Your task to perform on an android device: Open calendar and show me the fourth week of next month Image 0: 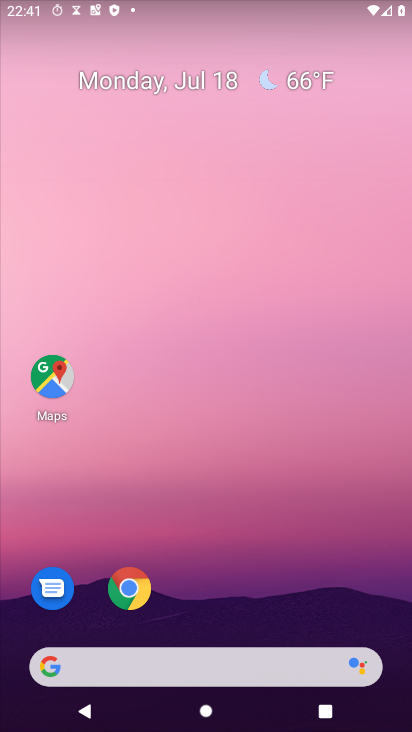
Step 0: press home button
Your task to perform on an android device: Open calendar and show me the fourth week of next month Image 1: 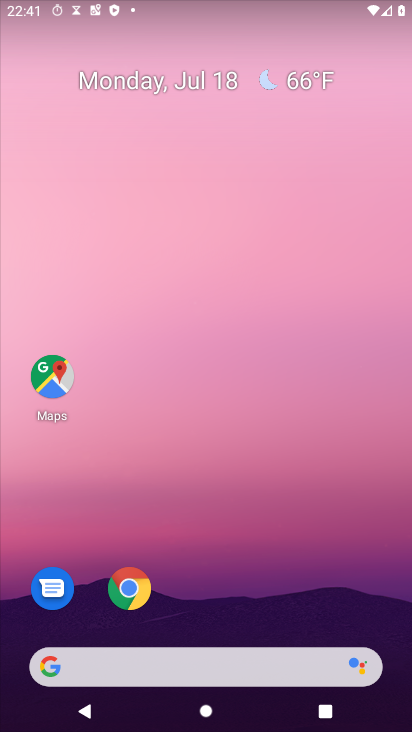
Step 1: drag from (225, 668) to (263, 67)
Your task to perform on an android device: Open calendar and show me the fourth week of next month Image 2: 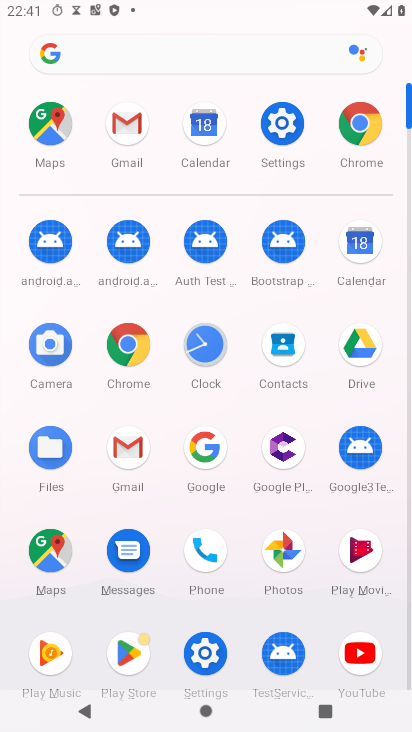
Step 2: click (365, 248)
Your task to perform on an android device: Open calendar and show me the fourth week of next month Image 3: 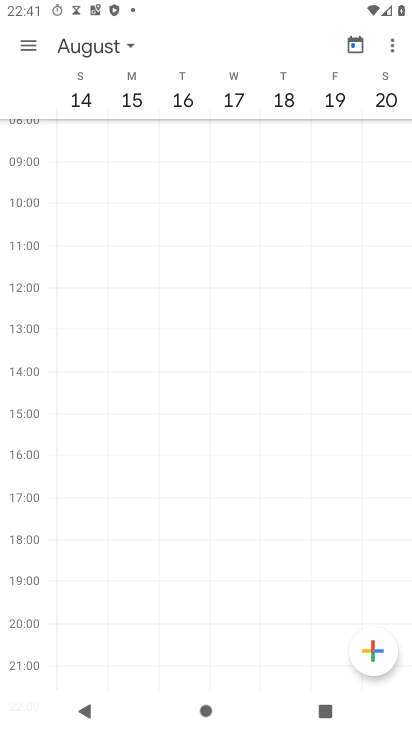
Step 3: click (109, 34)
Your task to perform on an android device: Open calendar and show me the fourth week of next month Image 4: 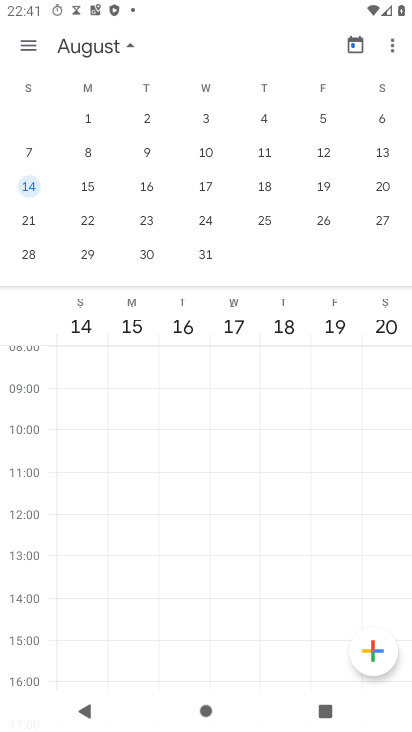
Step 4: click (33, 222)
Your task to perform on an android device: Open calendar and show me the fourth week of next month Image 5: 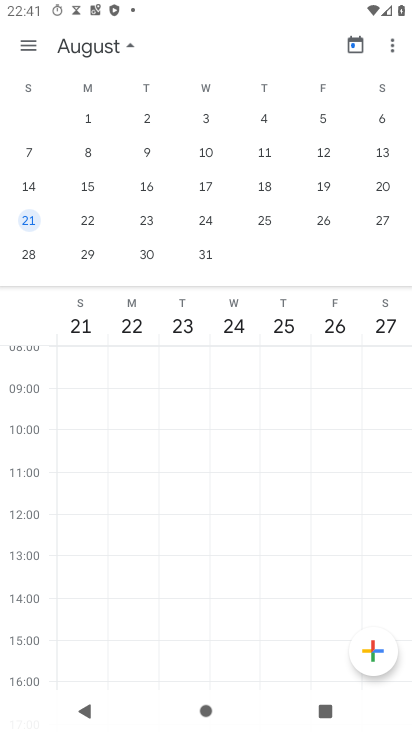
Step 5: task complete